Your task to perform on an android device: check android version Image 0: 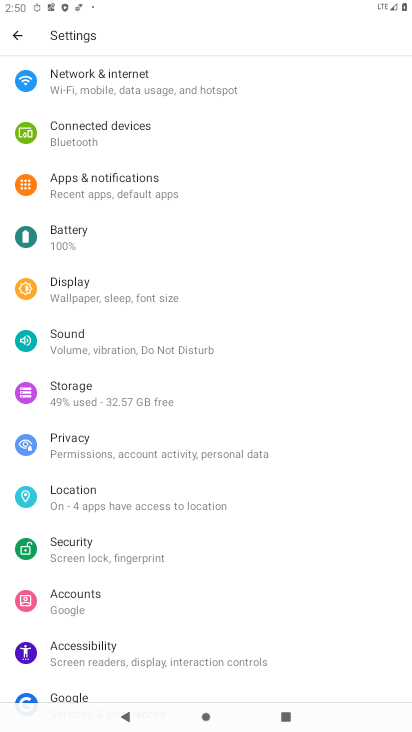
Step 0: drag from (297, 563) to (216, 83)
Your task to perform on an android device: check android version Image 1: 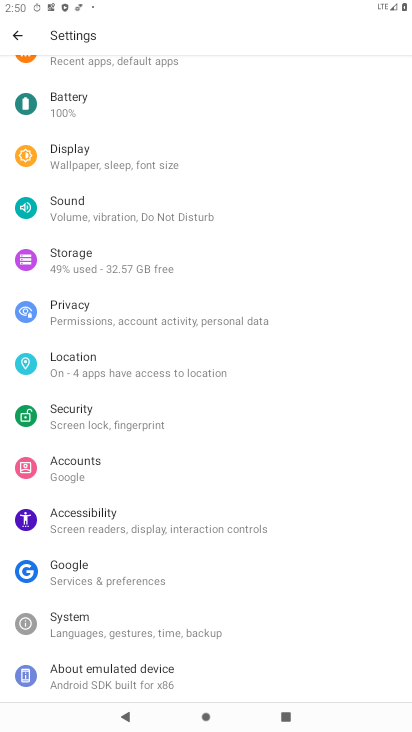
Step 1: drag from (160, 668) to (94, 355)
Your task to perform on an android device: check android version Image 2: 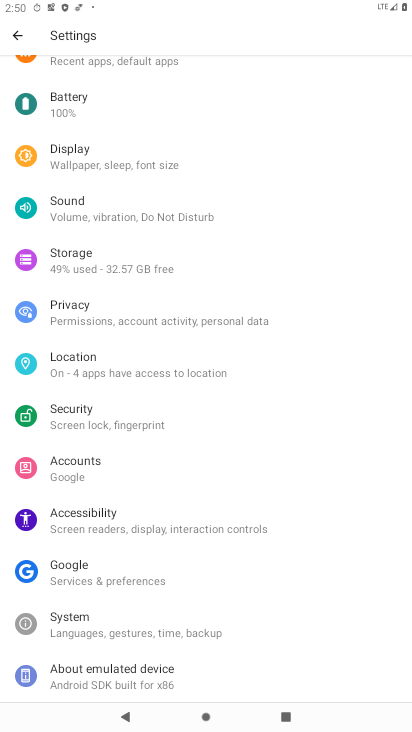
Step 2: click (80, 673)
Your task to perform on an android device: check android version Image 3: 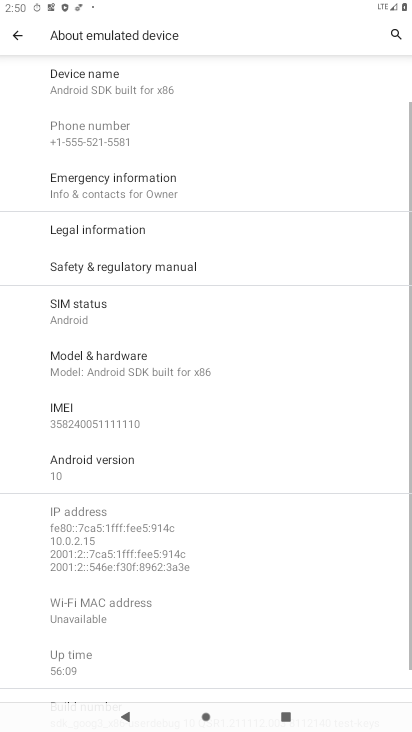
Step 3: click (130, 478)
Your task to perform on an android device: check android version Image 4: 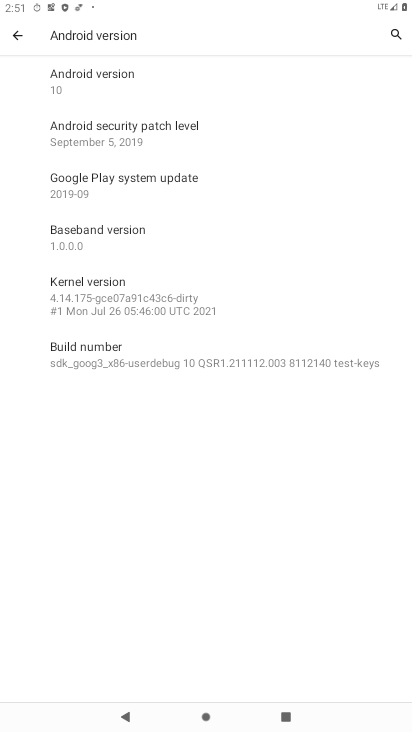
Step 4: task complete